Your task to perform on an android device: Open the map Image 0: 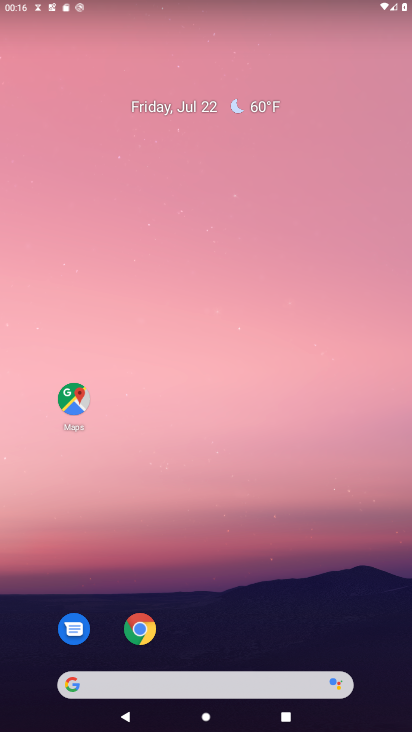
Step 0: click (71, 396)
Your task to perform on an android device: Open the map Image 1: 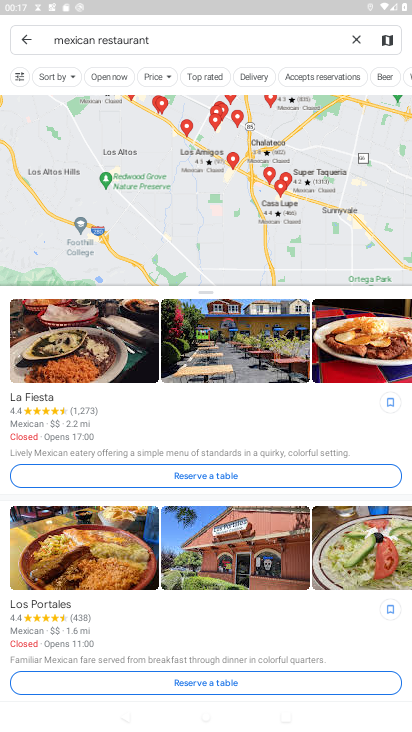
Step 1: click (361, 39)
Your task to perform on an android device: Open the map Image 2: 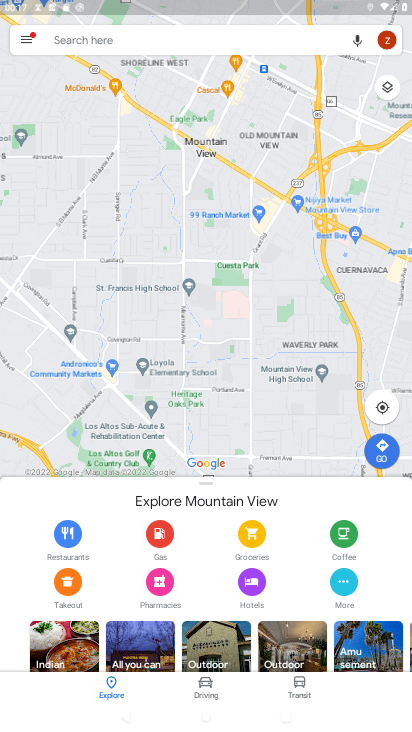
Step 2: task complete